Your task to perform on an android device: Open the Play Movies app and select the watchlist tab. Image 0: 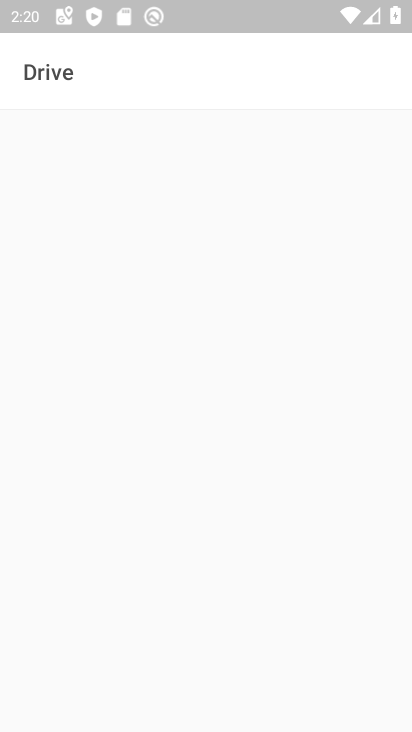
Step 0: press home button
Your task to perform on an android device: Open the Play Movies app and select the watchlist tab. Image 1: 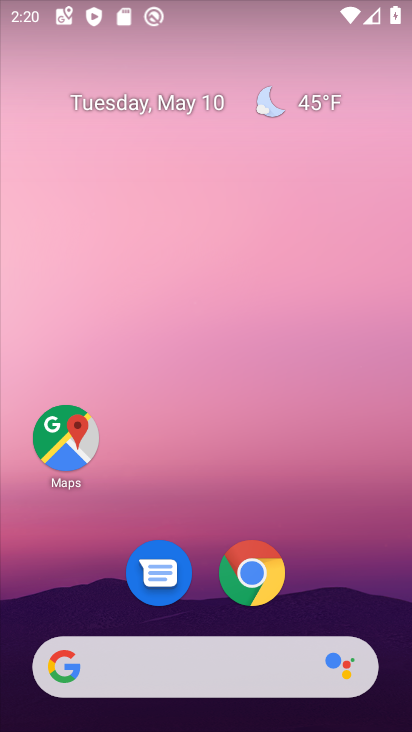
Step 1: drag from (215, 616) to (254, 240)
Your task to perform on an android device: Open the Play Movies app and select the watchlist tab. Image 2: 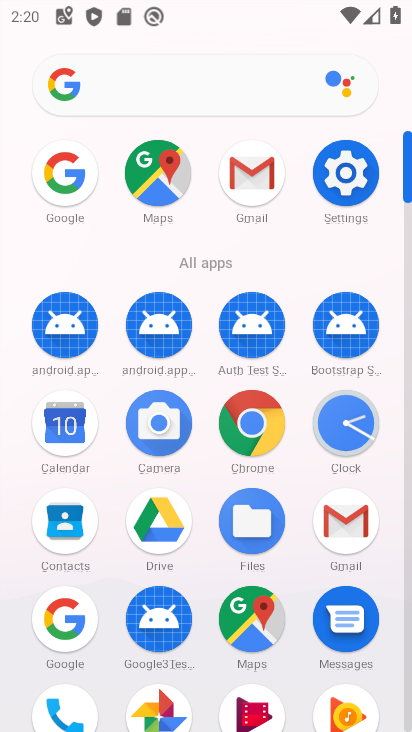
Step 2: click (250, 701)
Your task to perform on an android device: Open the Play Movies app and select the watchlist tab. Image 3: 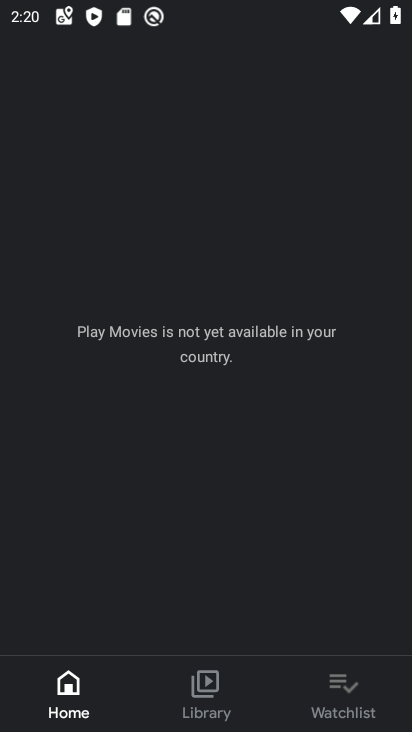
Step 3: click (334, 690)
Your task to perform on an android device: Open the Play Movies app and select the watchlist tab. Image 4: 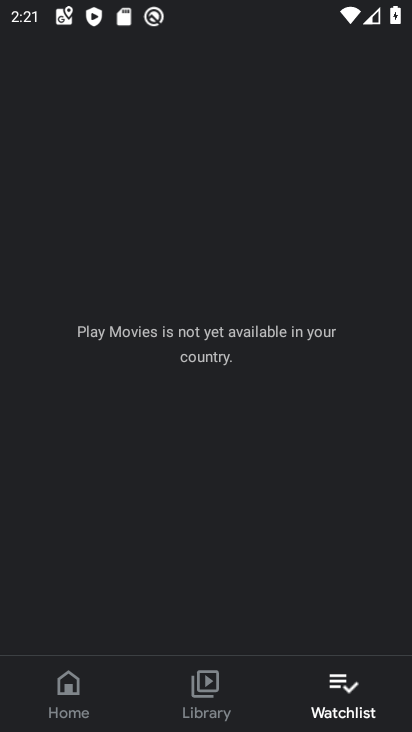
Step 4: task complete